Your task to perform on an android device: change the clock display to show seconds Image 0: 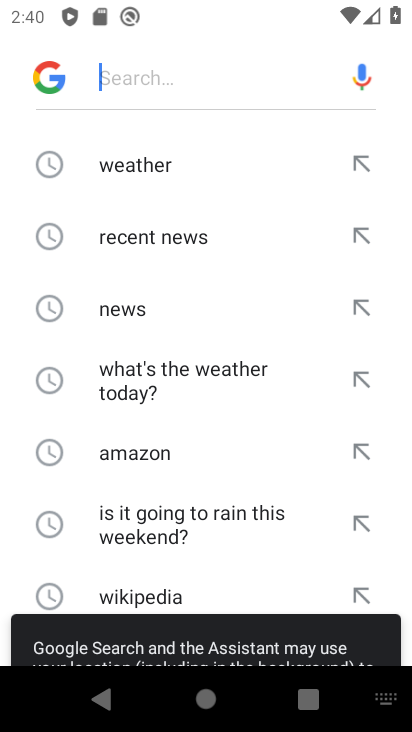
Step 0: press home button
Your task to perform on an android device: change the clock display to show seconds Image 1: 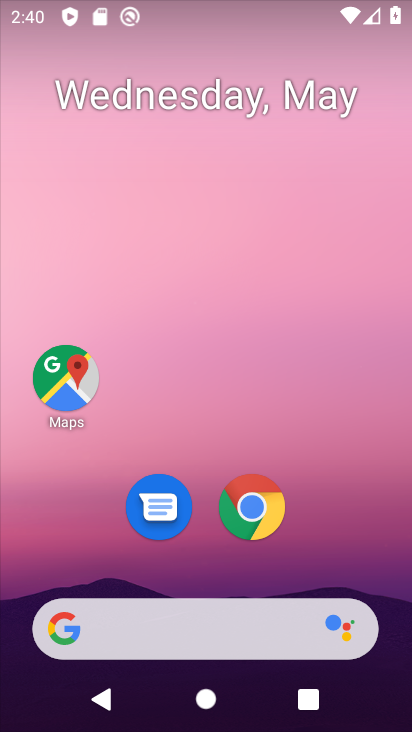
Step 1: drag from (210, 560) to (243, 119)
Your task to perform on an android device: change the clock display to show seconds Image 2: 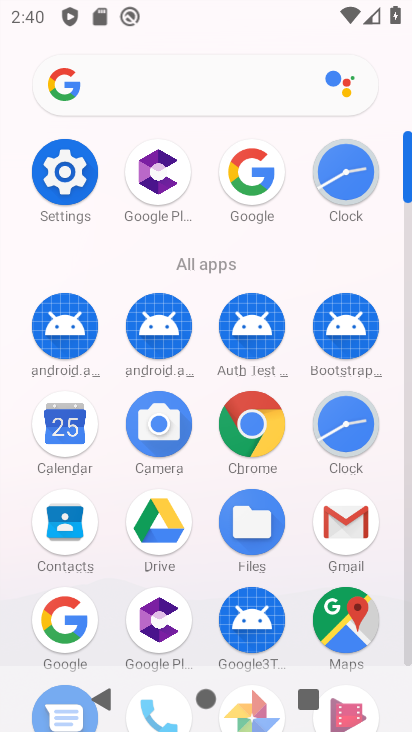
Step 2: click (348, 425)
Your task to perform on an android device: change the clock display to show seconds Image 3: 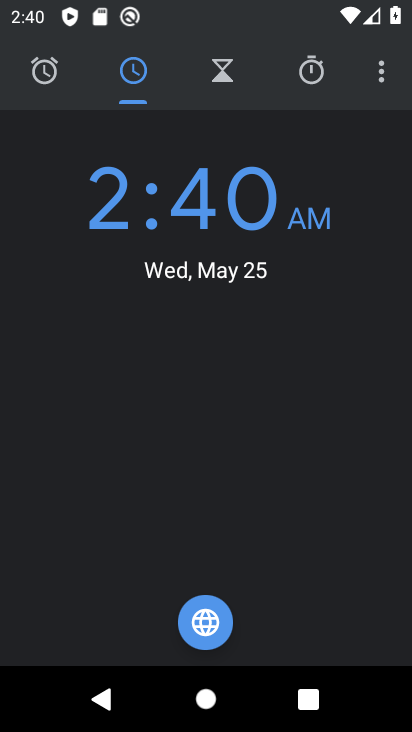
Step 3: click (367, 68)
Your task to perform on an android device: change the clock display to show seconds Image 4: 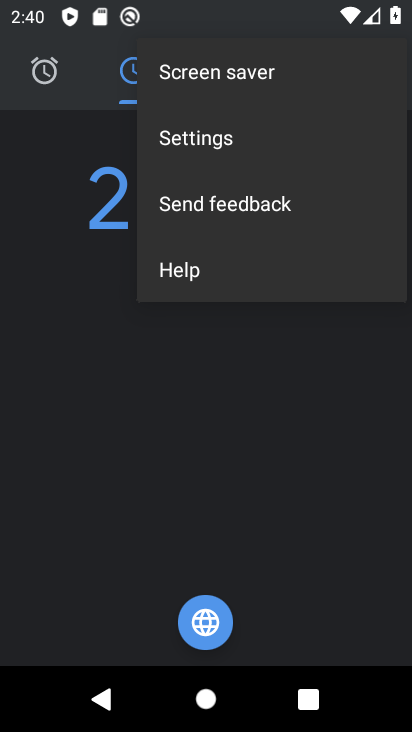
Step 4: click (231, 139)
Your task to perform on an android device: change the clock display to show seconds Image 5: 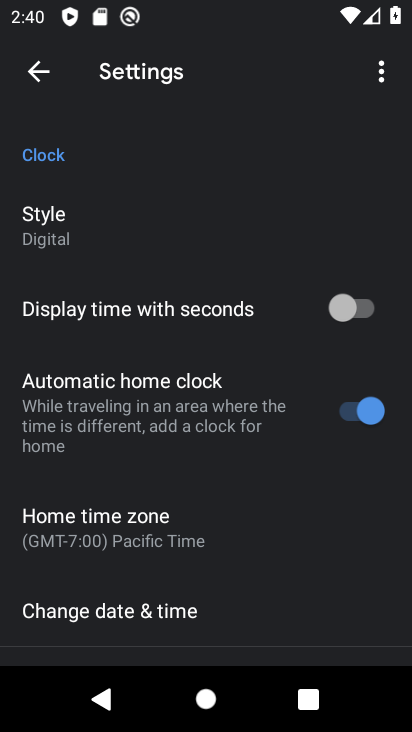
Step 5: click (130, 230)
Your task to perform on an android device: change the clock display to show seconds Image 6: 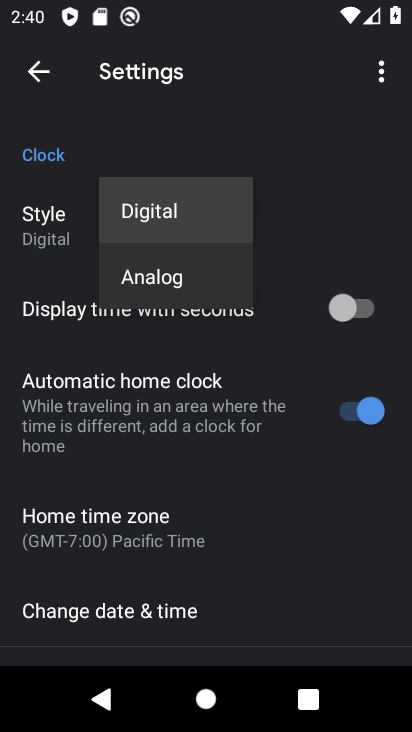
Step 6: click (168, 276)
Your task to perform on an android device: change the clock display to show seconds Image 7: 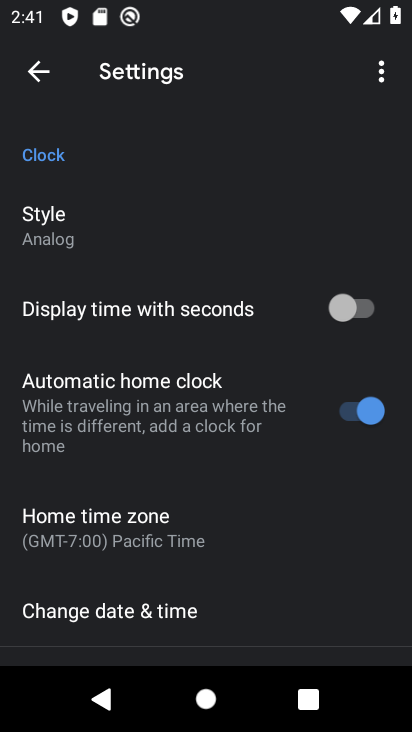
Step 7: task complete